Your task to perform on an android device: Open the phone app and click the voicemail tab. Image 0: 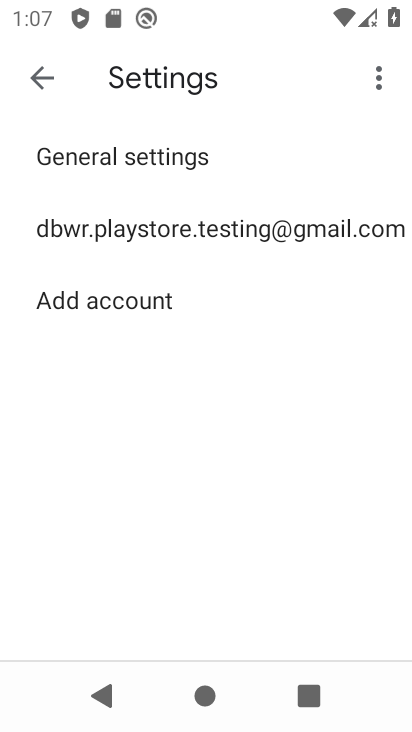
Step 0: press home button
Your task to perform on an android device: Open the phone app and click the voicemail tab. Image 1: 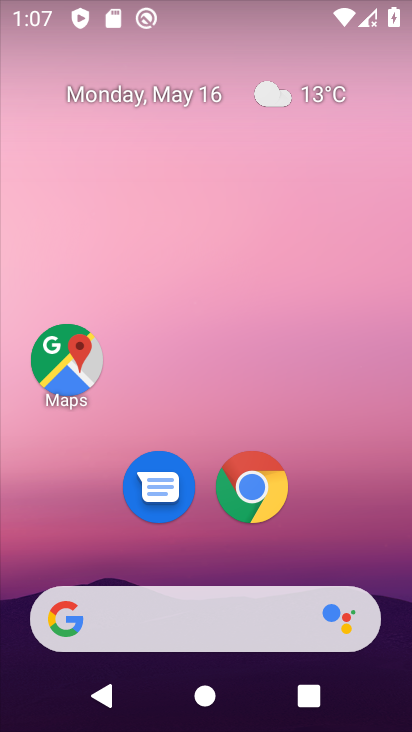
Step 1: drag from (400, 640) to (405, 180)
Your task to perform on an android device: Open the phone app and click the voicemail tab. Image 2: 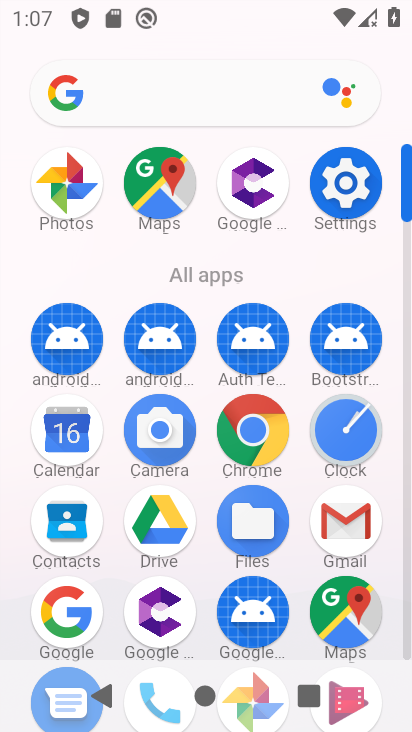
Step 2: drag from (401, 155) to (406, 77)
Your task to perform on an android device: Open the phone app and click the voicemail tab. Image 3: 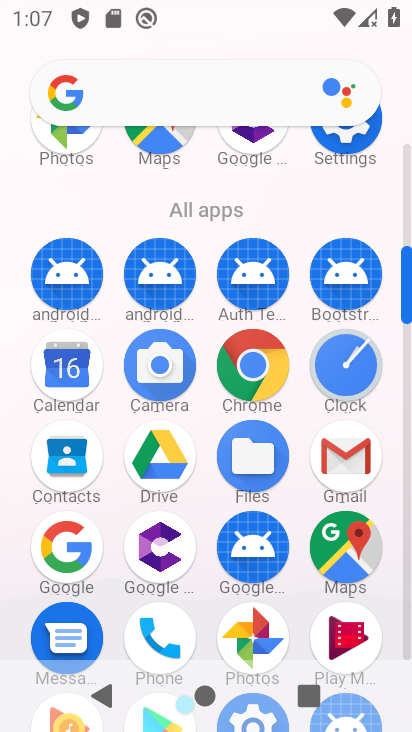
Step 3: click (165, 628)
Your task to perform on an android device: Open the phone app and click the voicemail tab. Image 4: 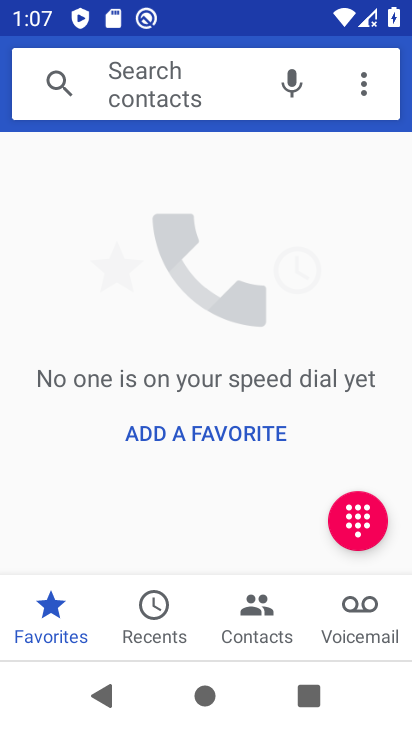
Step 4: click (351, 617)
Your task to perform on an android device: Open the phone app and click the voicemail tab. Image 5: 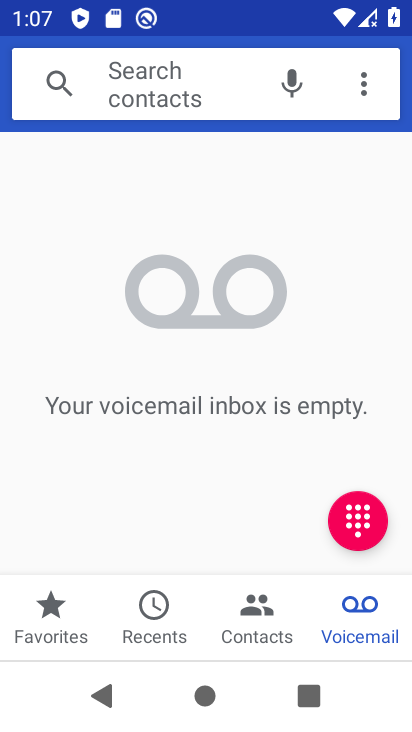
Step 5: task complete